Your task to perform on an android device: Empty the shopping cart on walmart.com. Image 0: 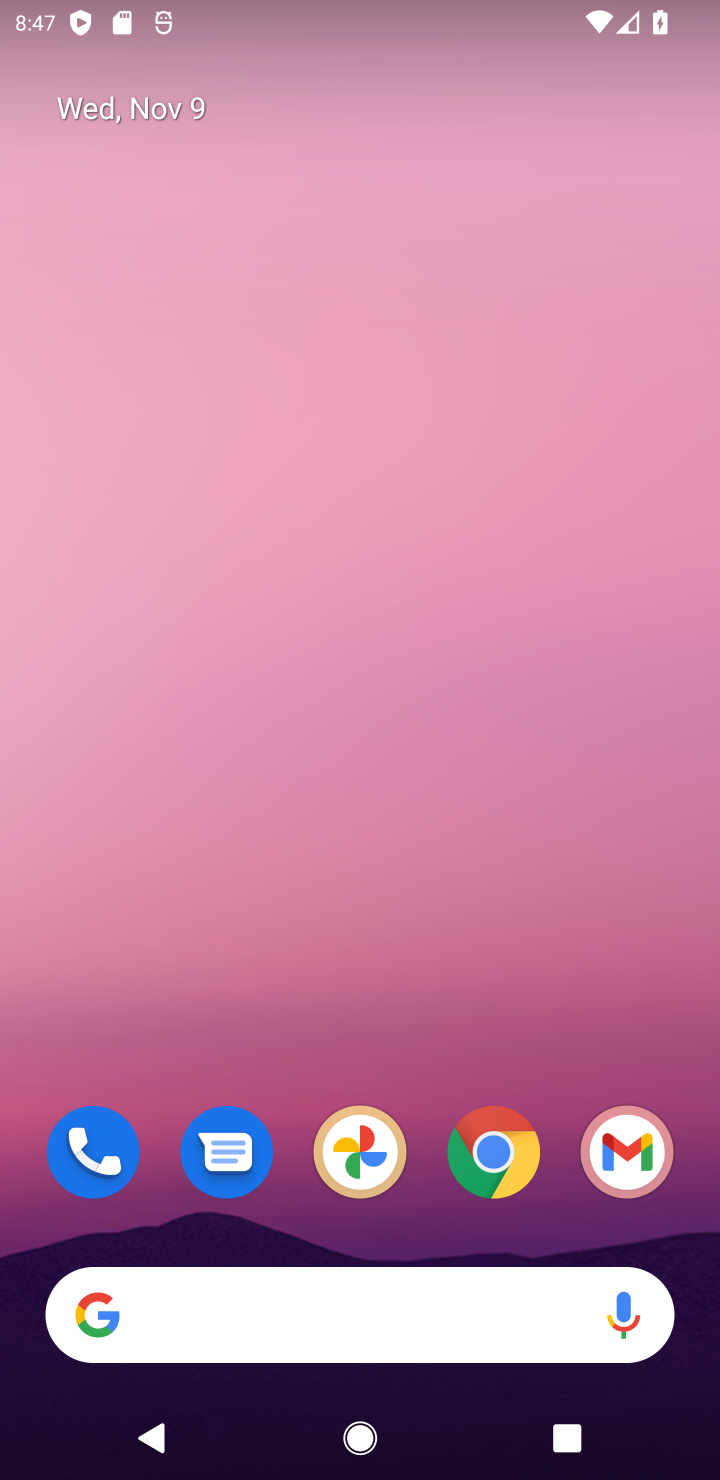
Step 0: click (495, 1152)
Your task to perform on an android device: Empty the shopping cart on walmart.com. Image 1: 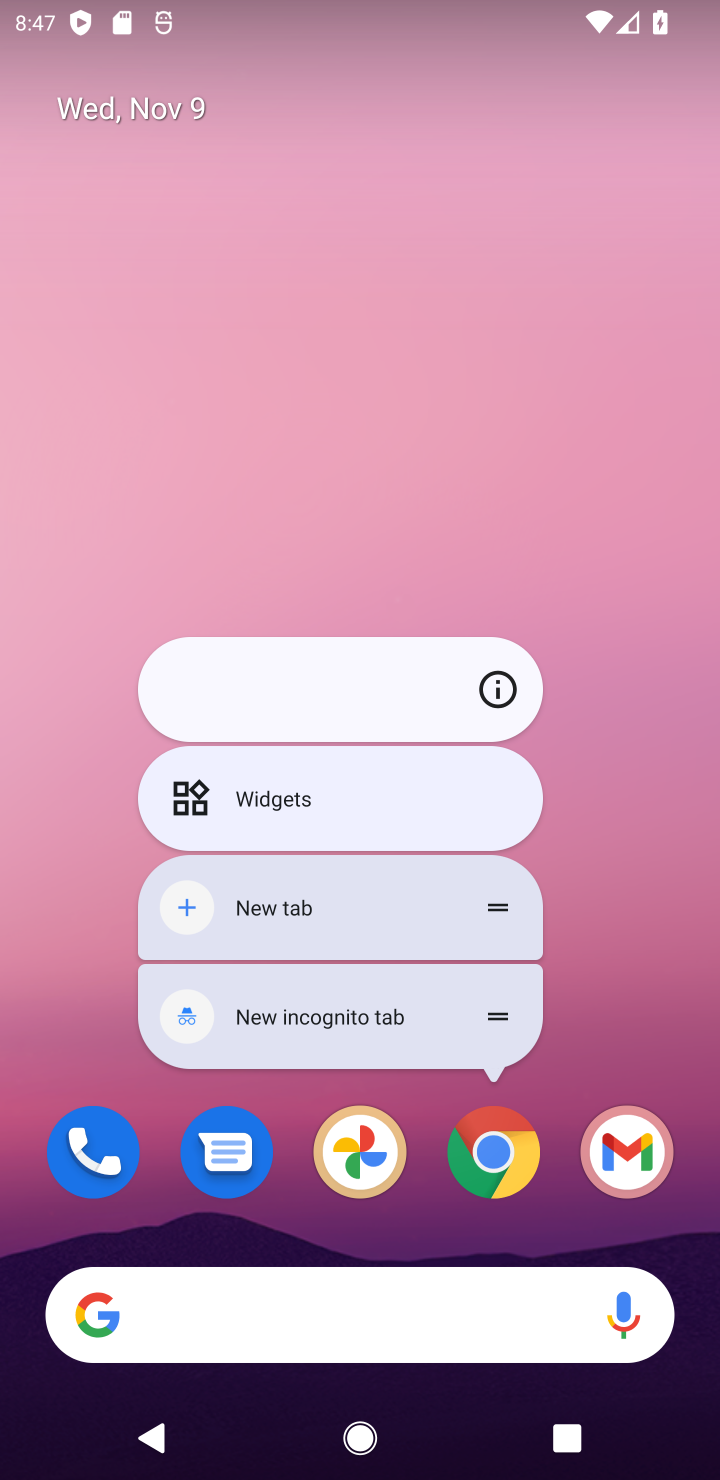
Step 1: click (495, 1157)
Your task to perform on an android device: Empty the shopping cart on walmart.com. Image 2: 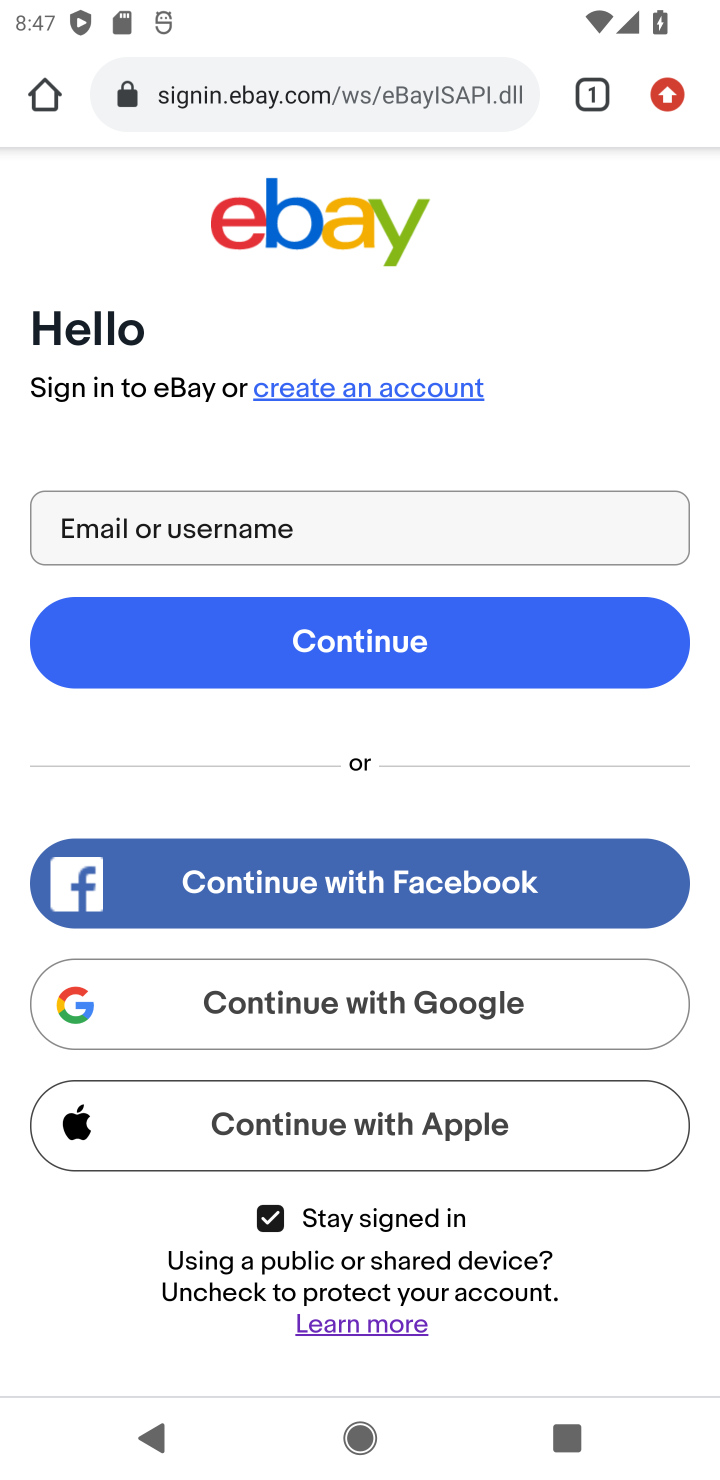
Step 2: click (230, 106)
Your task to perform on an android device: Empty the shopping cart on walmart.com. Image 3: 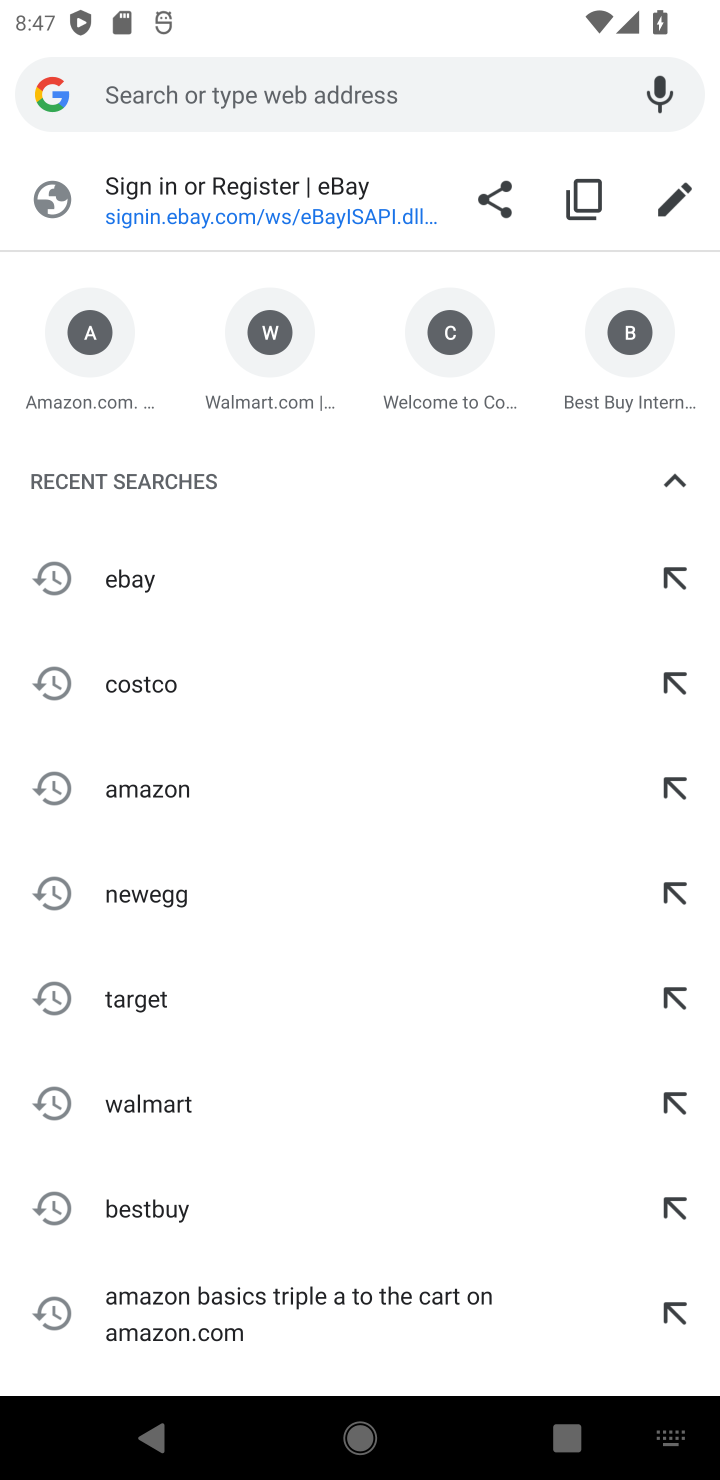
Step 3: click (137, 1094)
Your task to perform on an android device: Empty the shopping cart on walmart.com. Image 4: 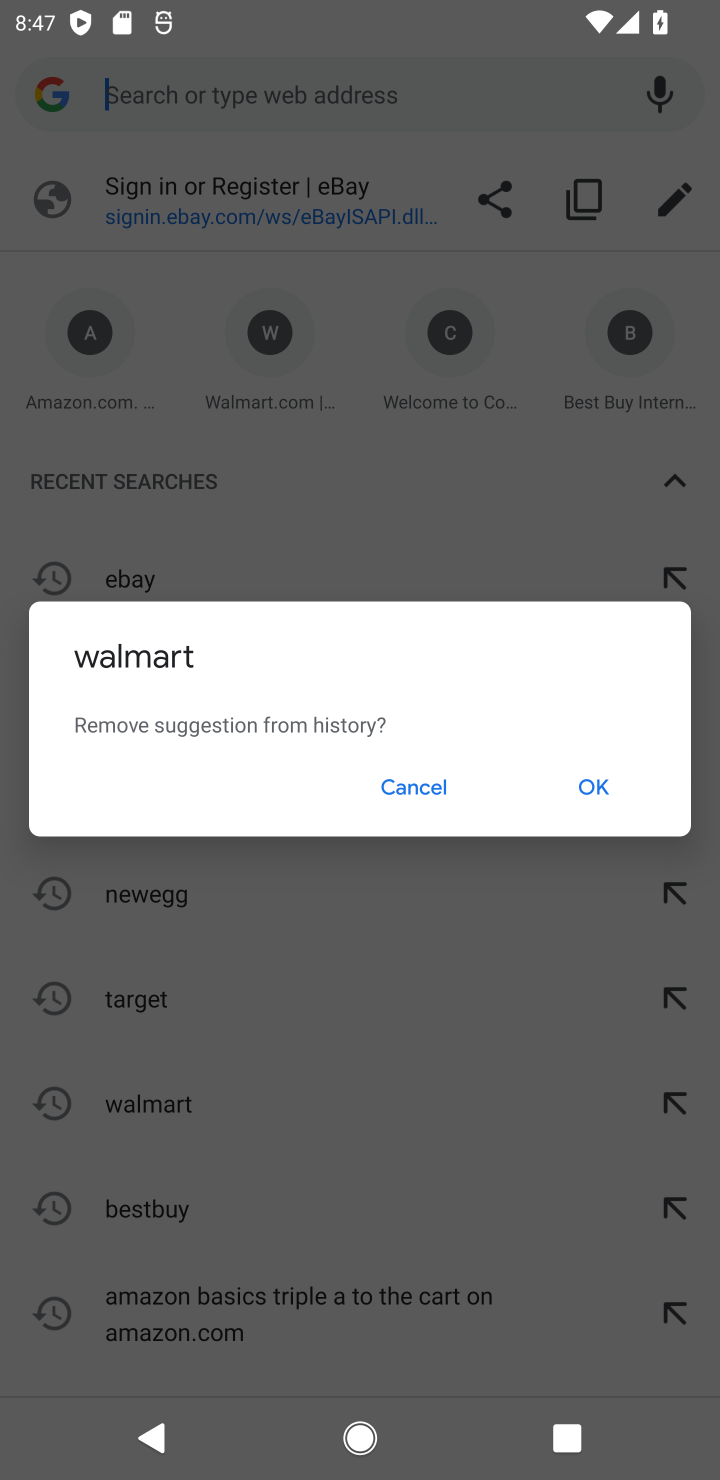
Step 4: click (410, 784)
Your task to perform on an android device: Empty the shopping cart on walmart.com. Image 5: 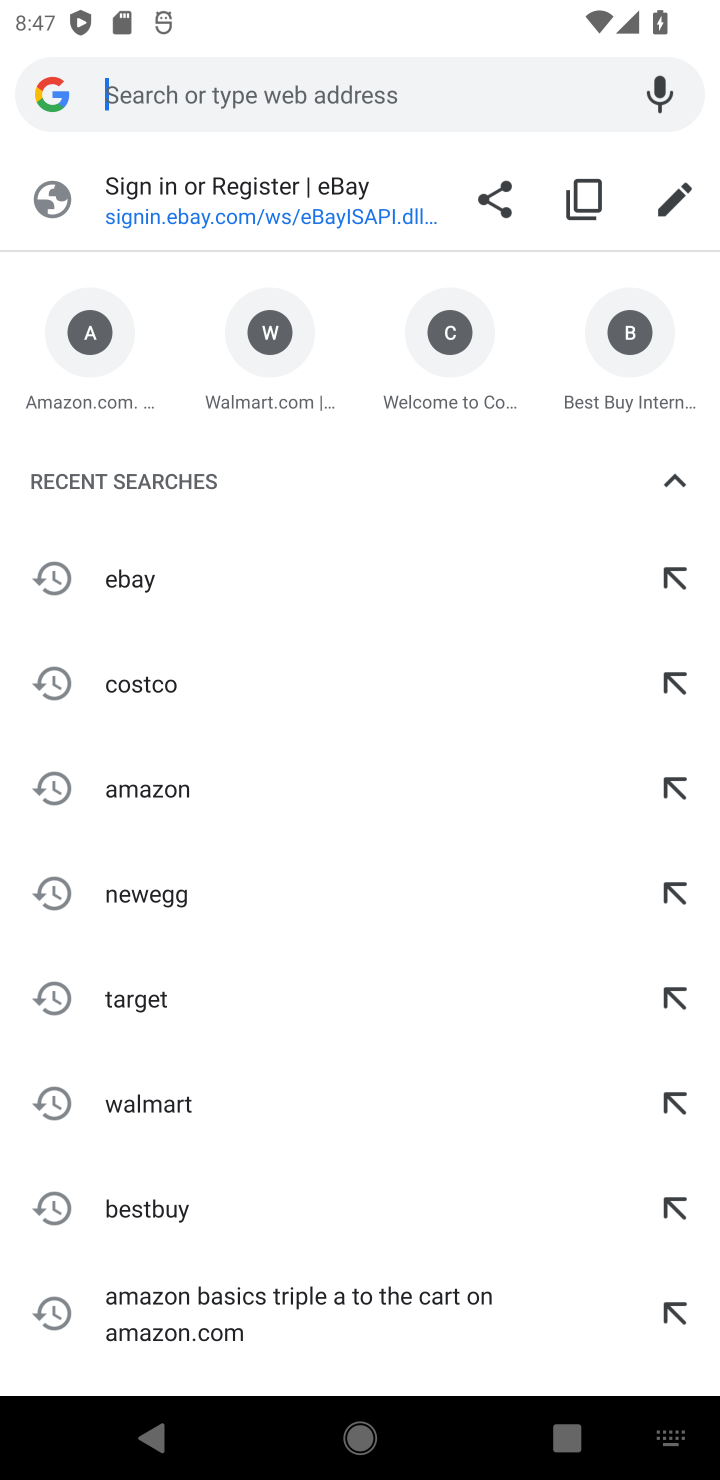
Step 5: click (140, 1096)
Your task to perform on an android device: Empty the shopping cart on walmart.com. Image 6: 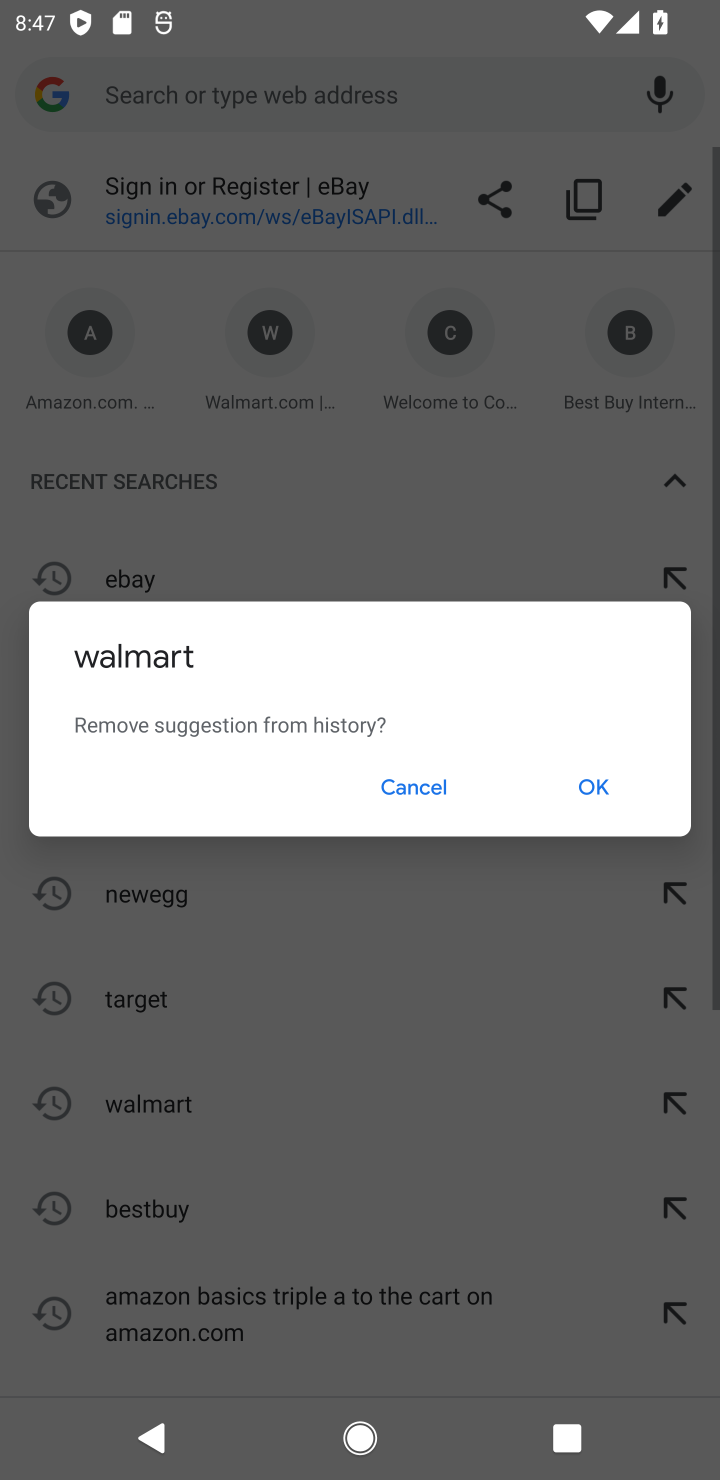
Step 6: click (133, 1101)
Your task to perform on an android device: Empty the shopping cart on walmart.com. Image 7: 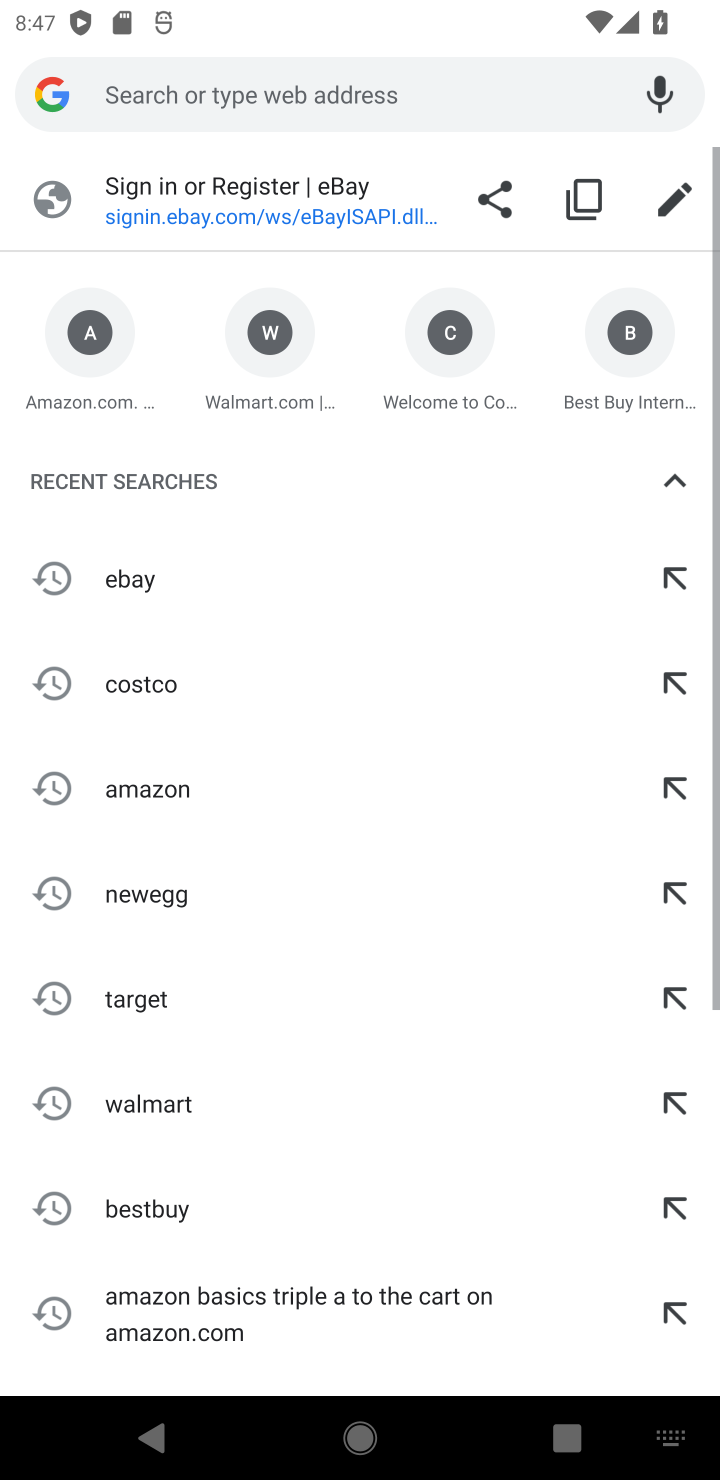
Step 7: click (121, 1117)
Your task to perform on an android device: Empty the shopping cart on walmart.com. Image 8: 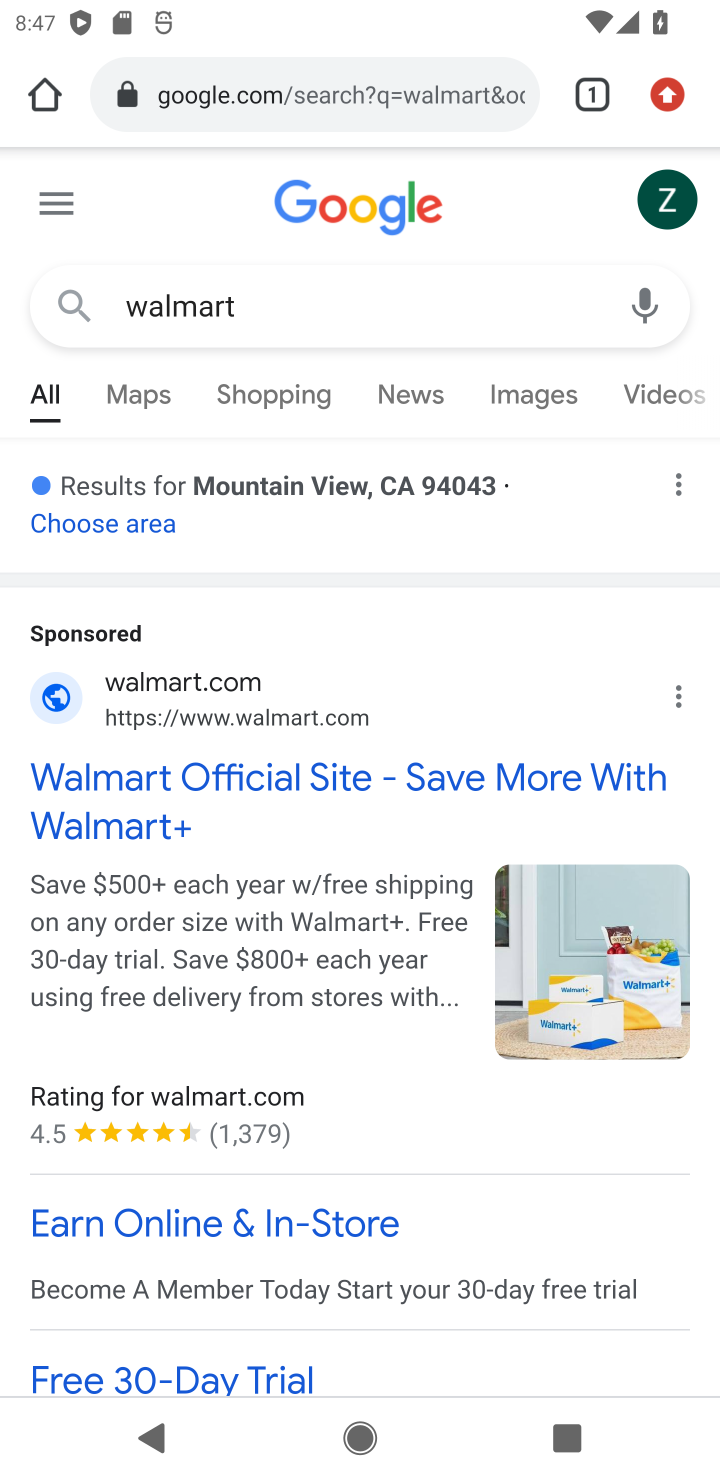
Step 8: click (199, 768)
Your task to perform on an android device: Empty the shopping cart on walmart.com. Image 9: 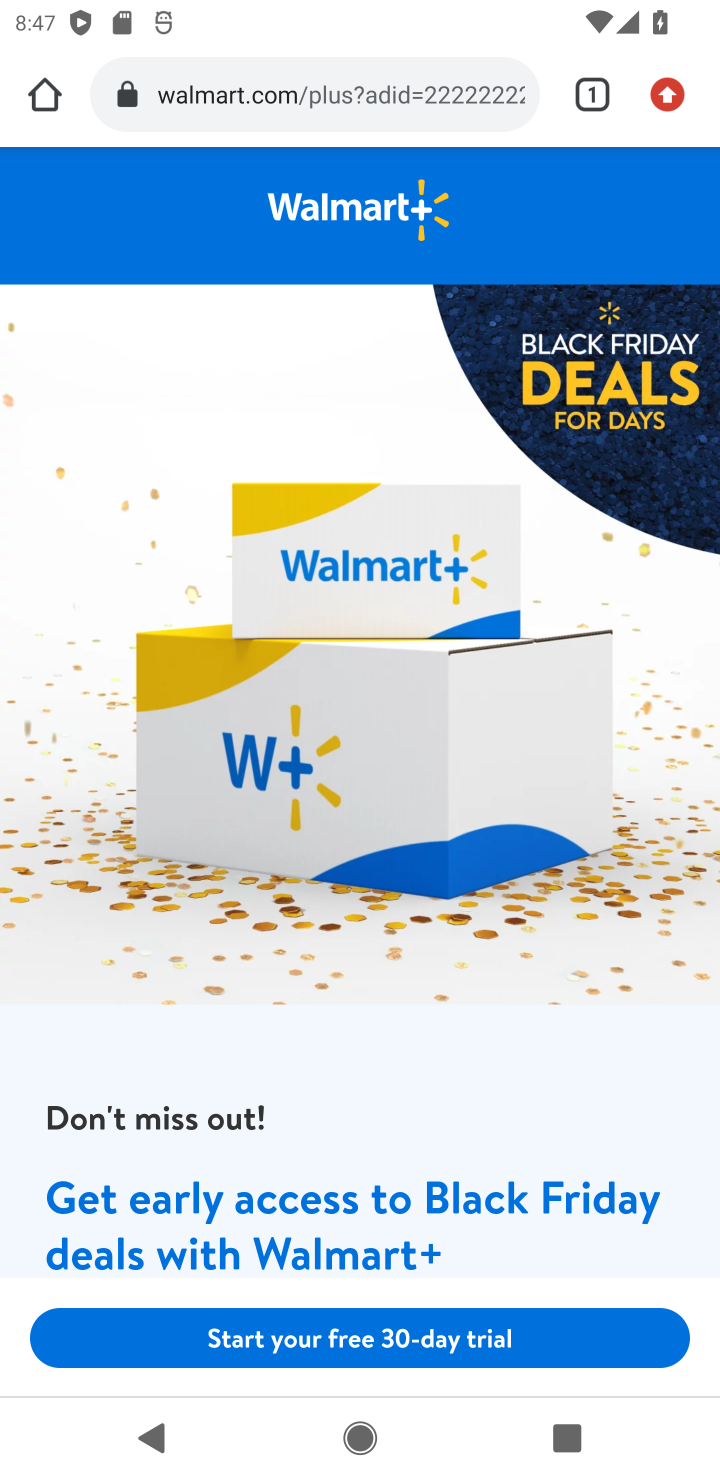
Step 9: drag from (335, 489) to (271, 1270)
Your task to perform on an android device: Empty the shopping cart on walmart.com. Image 10: 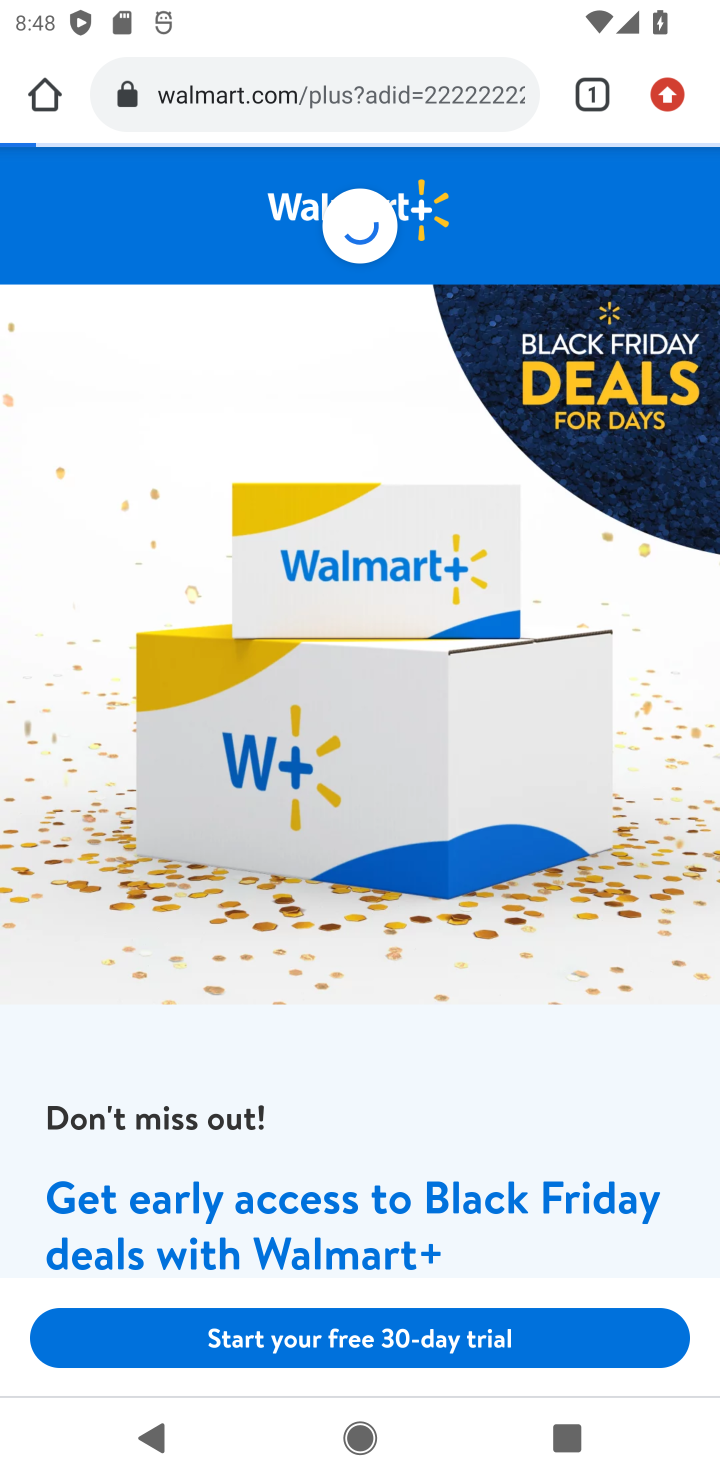
Step 10: press back button
Your task to perform on an android device: Empty the shopping cart on walmart.com. Image 11: 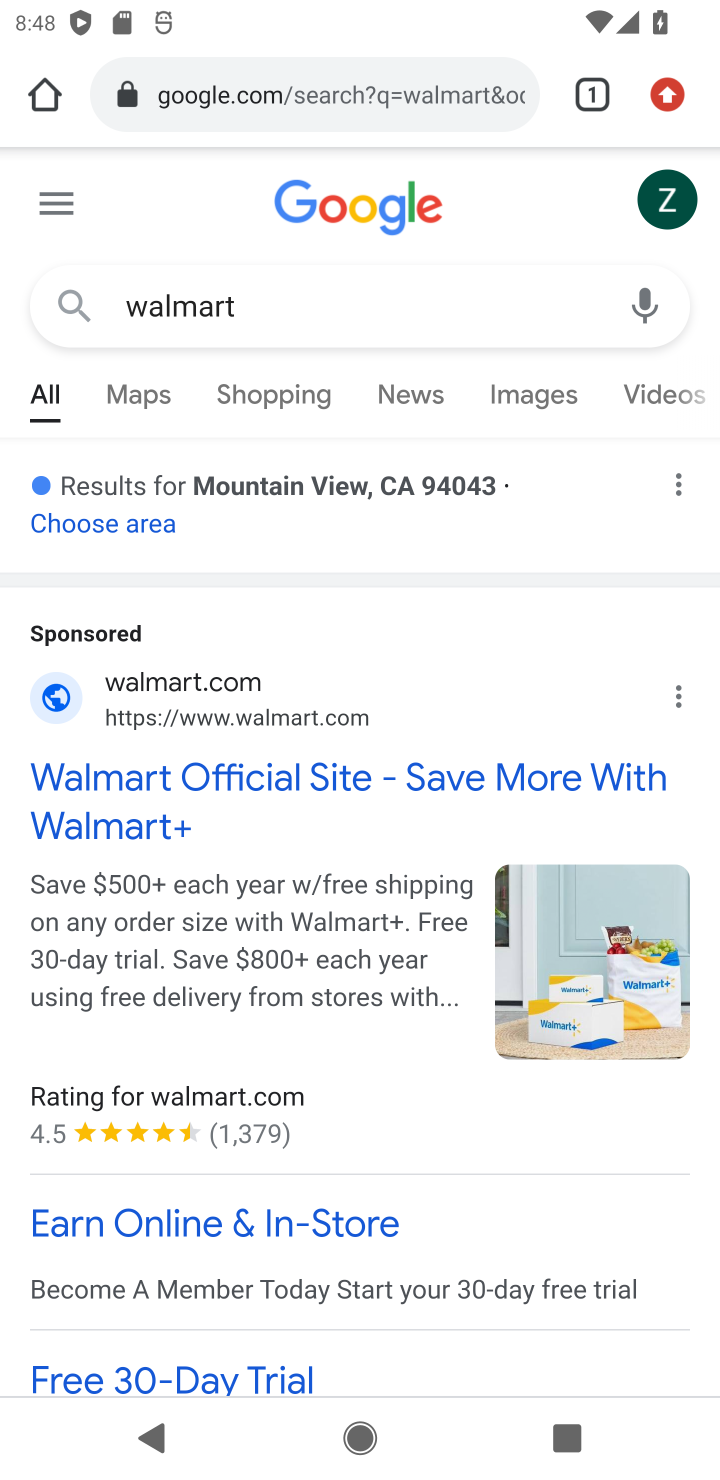
Step 11: drag from (203, 1168) to (533, 420)
Your task to perform on an android device: Empty the shopping cart on walmart.com. Image 12: 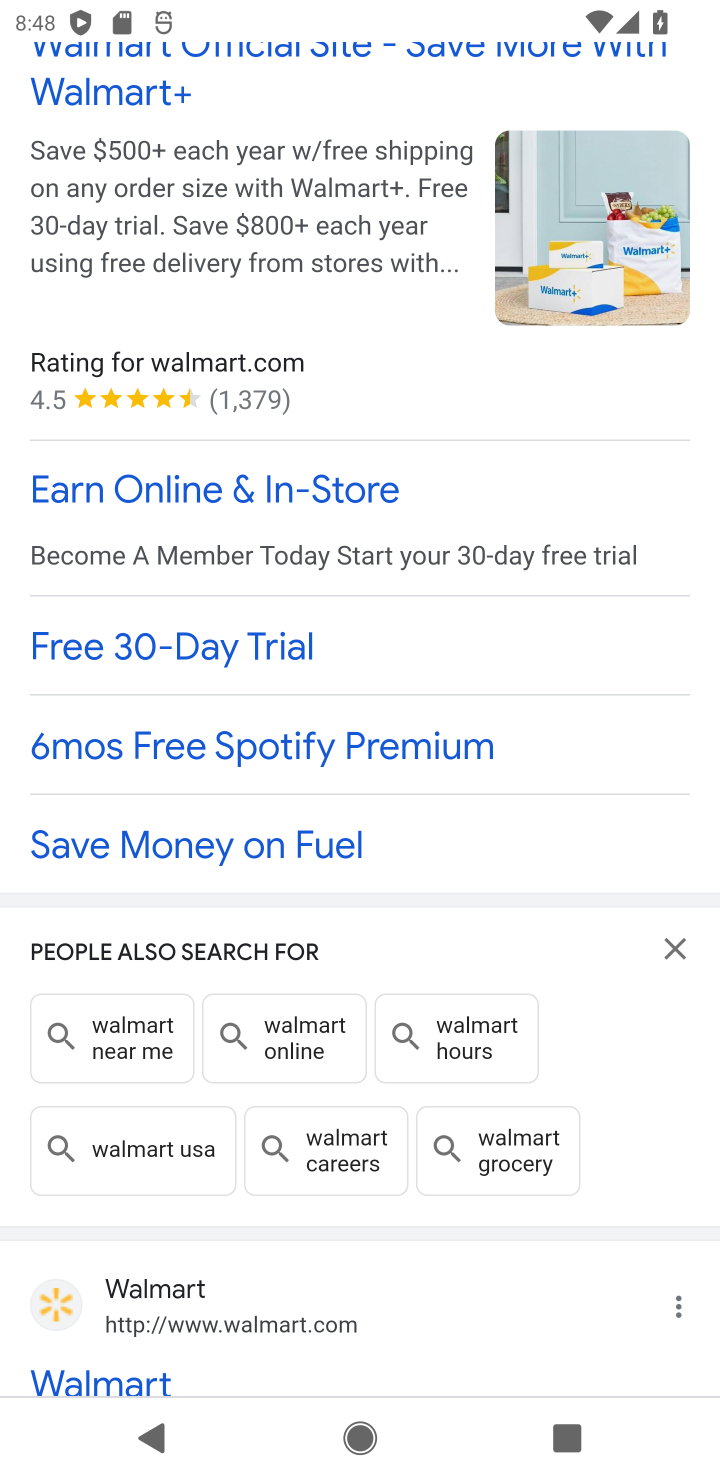
Step 12: drag from (231, 1287) to (424, 723)
Your task to perform on an android device: Empty the shopping cart on walmart.com. Image 13: 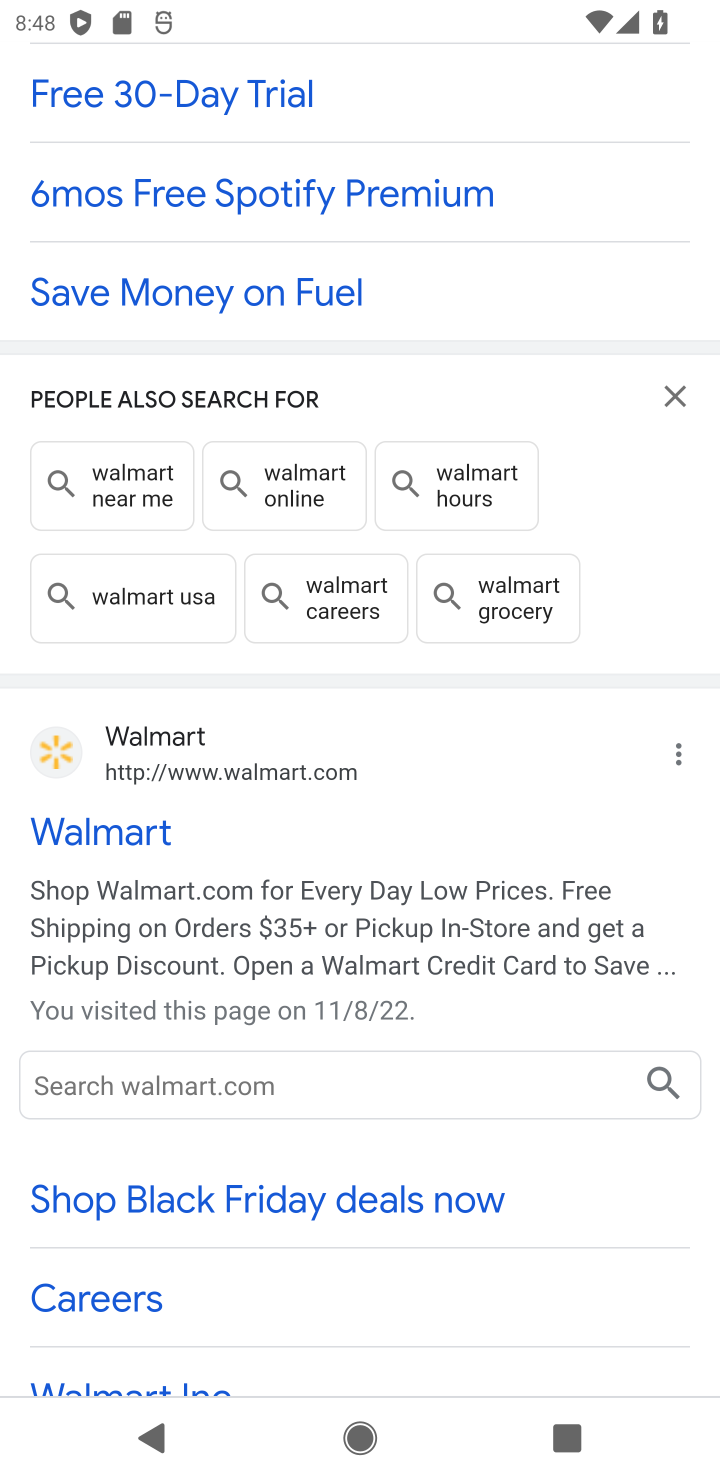
Step 13: click (117, 831)
Your task to perform on an android device: Empty the shopping cart on walmart.com. Image 14: 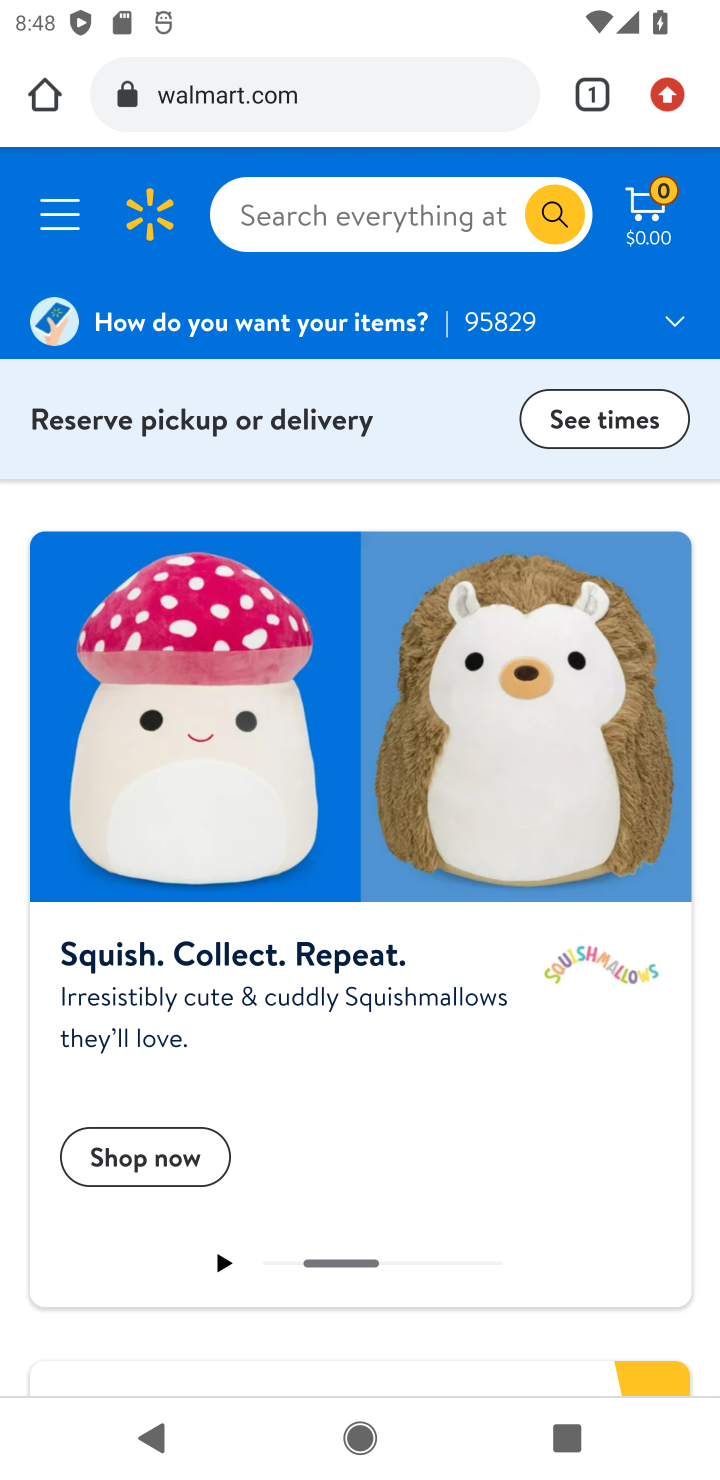
Step 14: click (649, 202)
Your task to perform on an android device: Empty the shopping cart on walmart.com. Image 15: 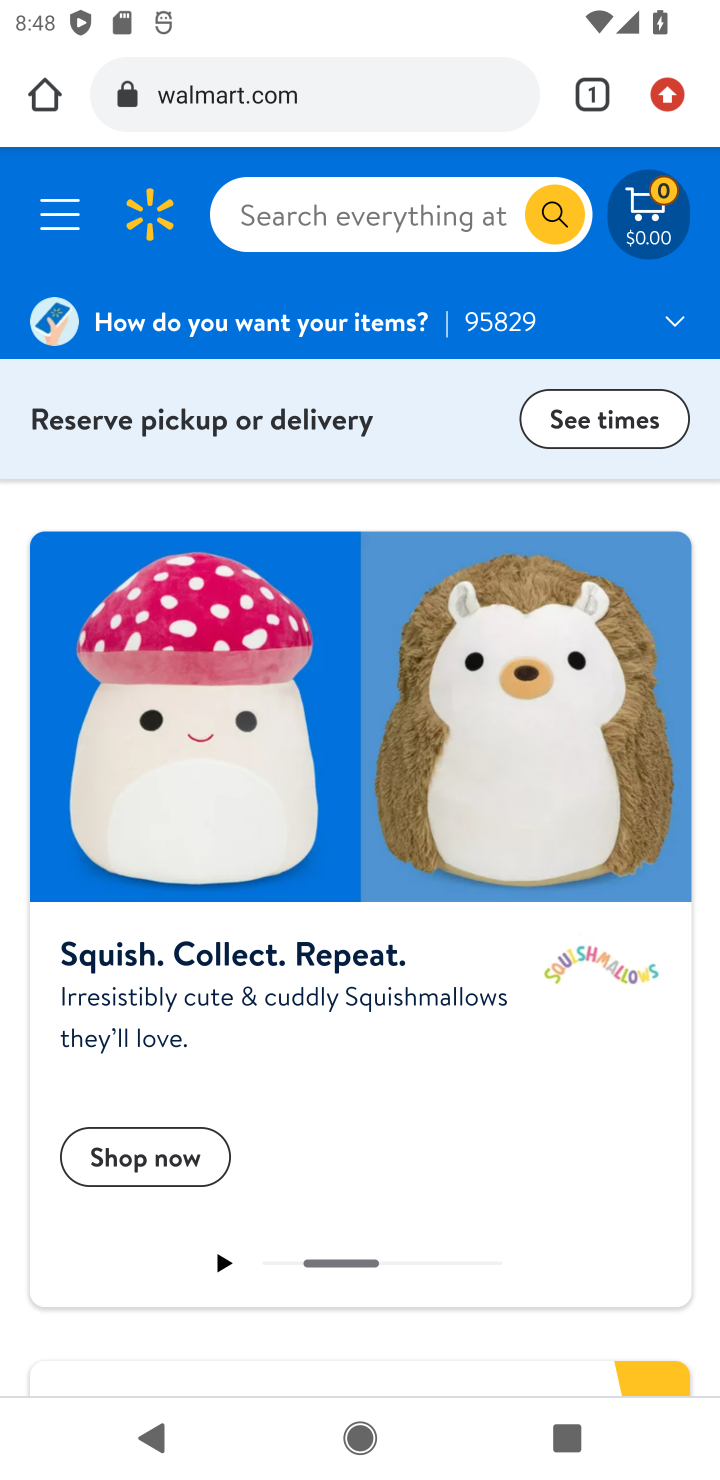
Step 15: click (655, 204)
Your task to perform on an android device: Empty the shopping cart on walmart.com. Image 16: 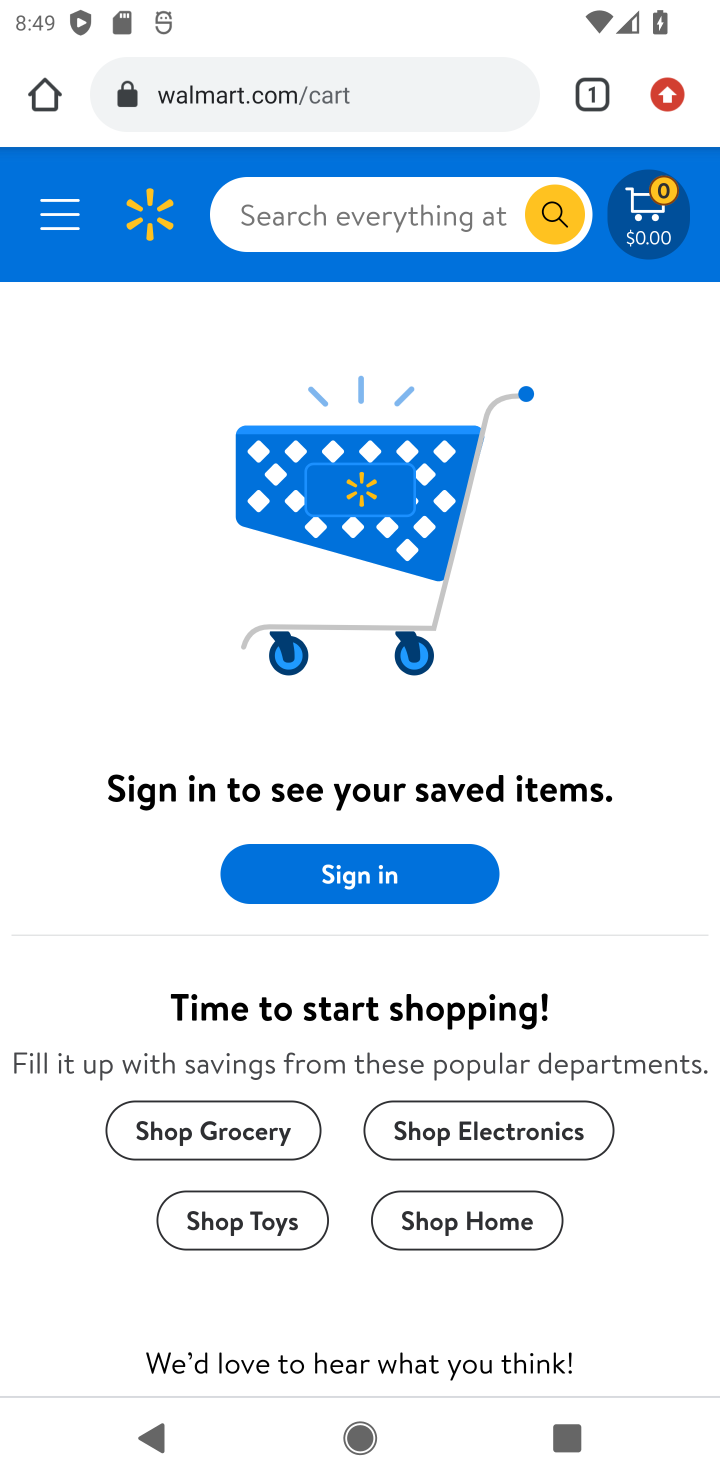
Step 16: task complete